Your task to perform on an android device: turn off translation in the chrome app Image 0: 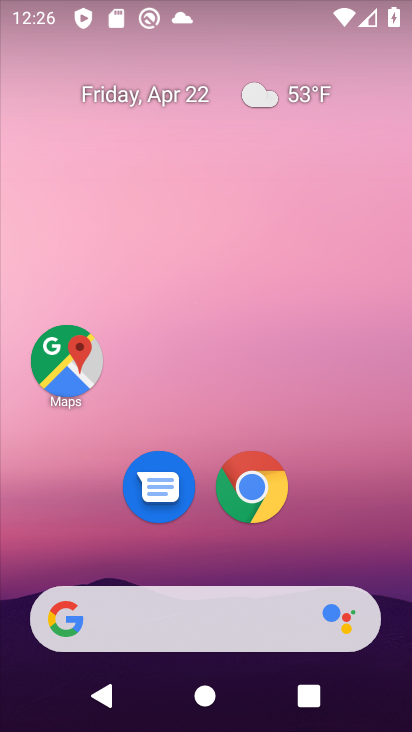
Step 0: drag from (364, 545) to (323, 66)
Your task to perform on an android device: turn off translation in the chrome app Image 1: 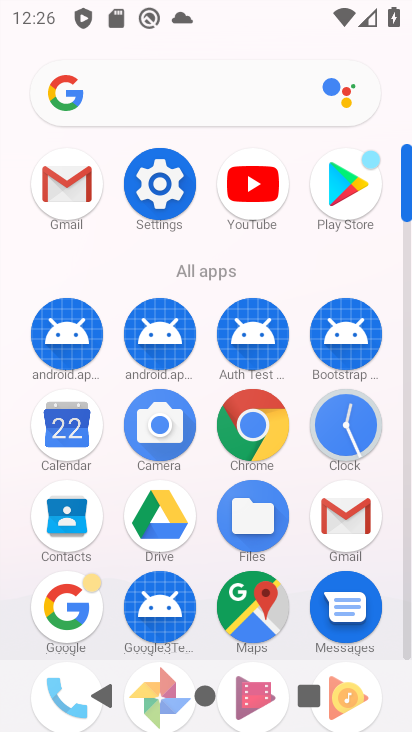
Step 1: click (252, 435)
Your task to perform on an android device: turn off translation in the chrome app Image 2: 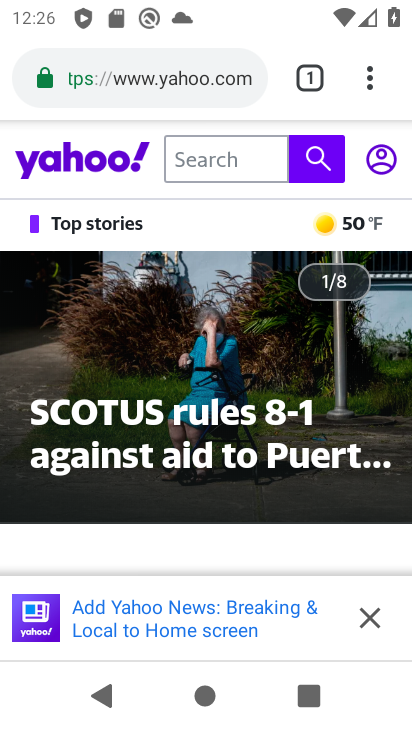
Step 2: drag from (374, 70) to (108, 542)
Your task to perform on an android device: turn off translation in the chrome app Image 3: 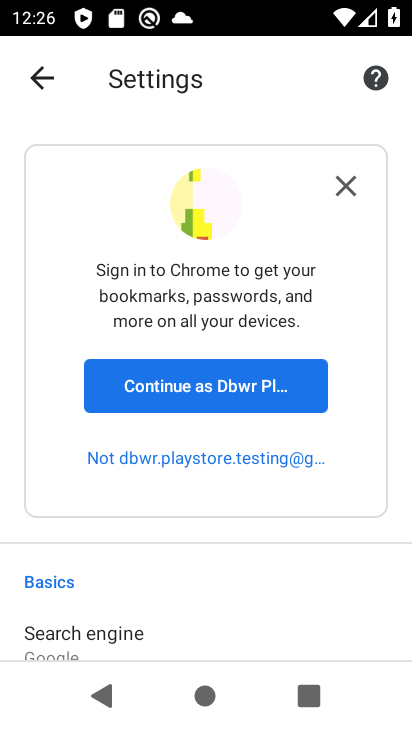
Step 3: click (243, 387)
Your task to perform on an android device: turn off translation in the chrome app Image 4: 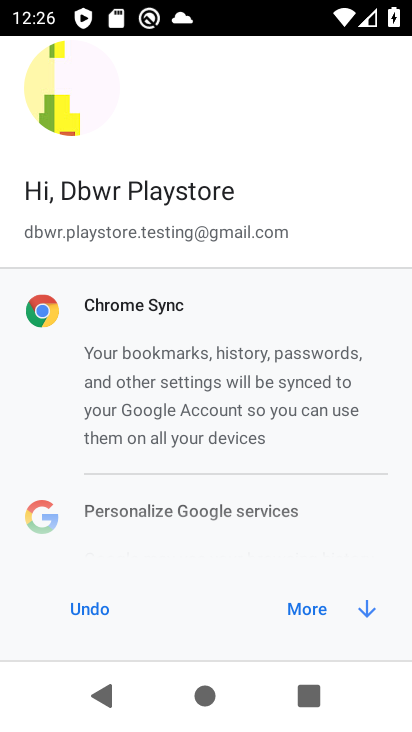
Step 4: click (306, 610)
Your task to perform on an android device: turn off translation in the chrome app Image 5: 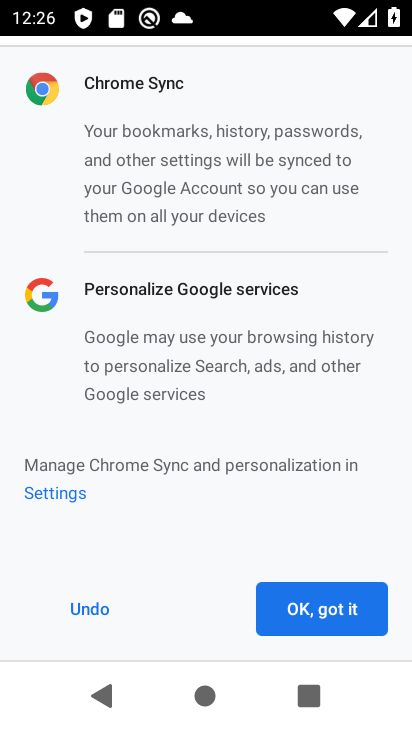
Step 5: click (306, 611)
Your task to perform on an android device: turn off translation in the chrome app Image 6: 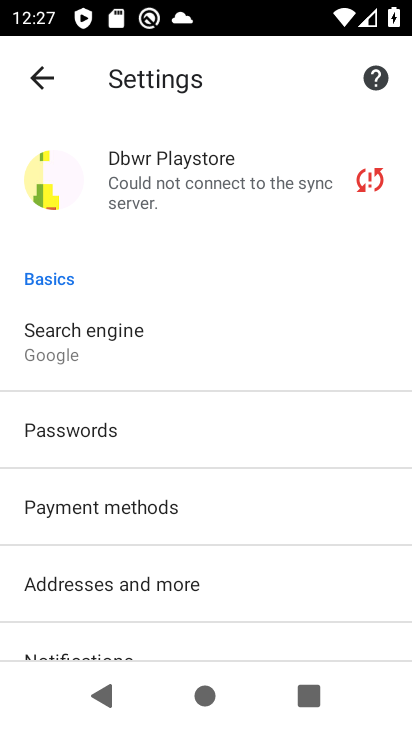
Step 6: drag from (140, 519) to (221, 163)
Your task to perform on an android device: turn off translation in the chrome app Image 7: 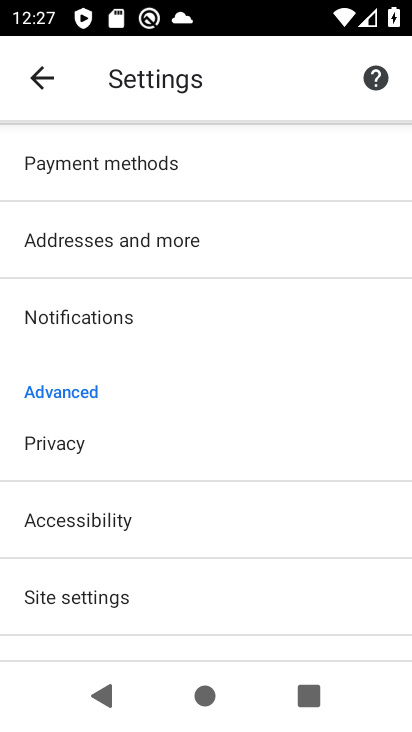
Step 7: drag from (155, 574) to (266, 150)
Your task to perform on an android device: turn off translation in the chrome app Image 8: 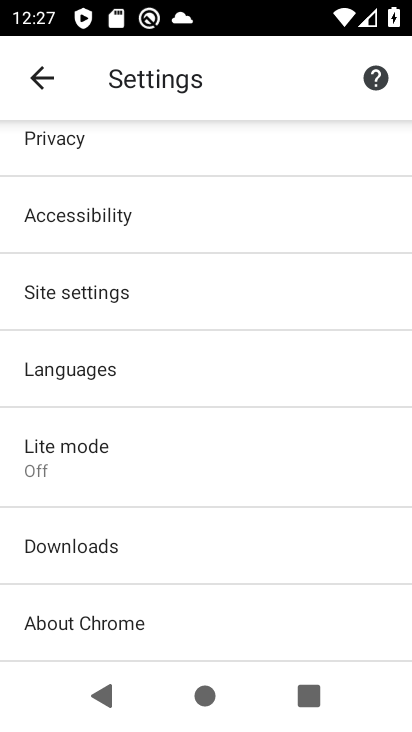
Step 8: click (132, 384)
Your task to perform on an android device: turn off translation in the chrome app Image 9: 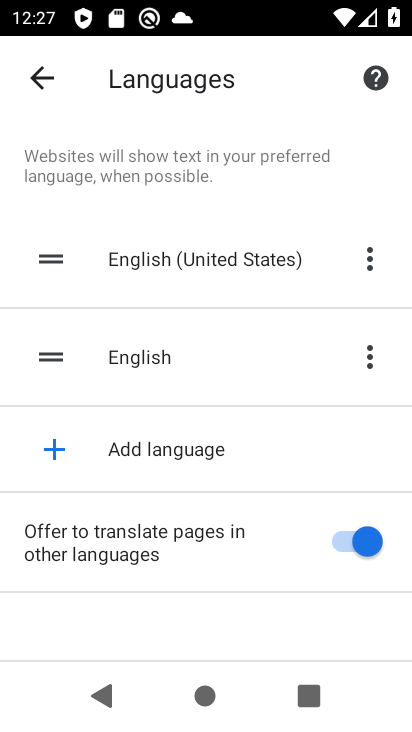
Step 9: click (340, 532)
Your task to perform on an android device: turn off translation in the chrome app Image 10: 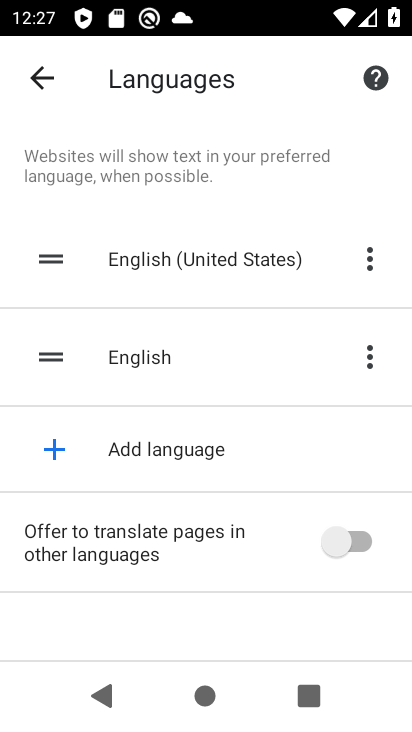
Step 10: task complete